Your task to perform on an android device: Open accessibility settings Image 0: 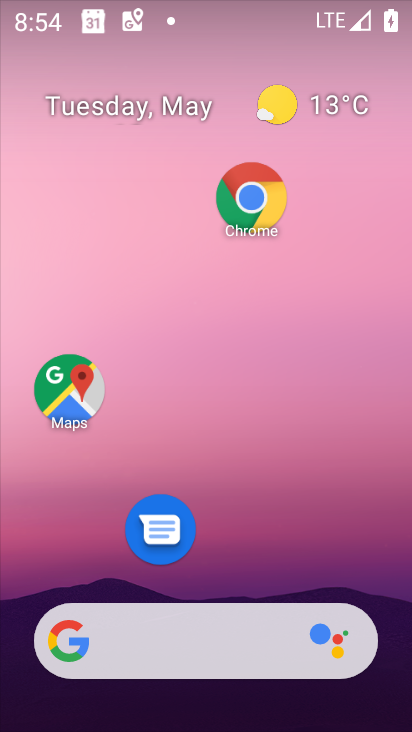
Step 0: drag from (260, 594) to (267, 96)
Your task to perform on an android device: Open accessibility settings Image 1: 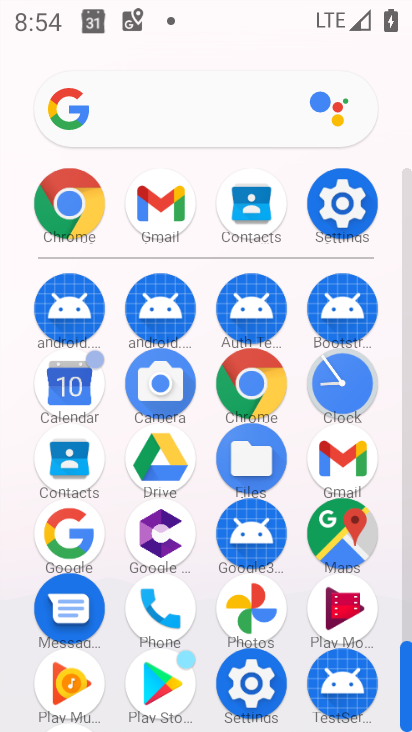
Step 1: click (341, 231)
Your task to perform on an android device: Open accessibility settings Image 2: 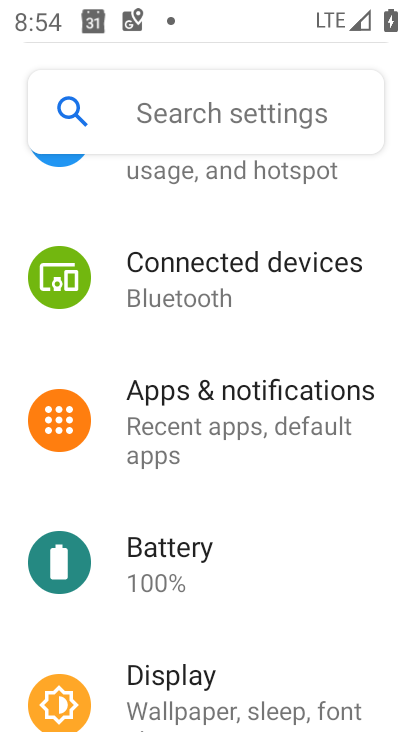
Step 2: drag from (265, 574) to (257, 294)
Your task to perform on an android device: Open accessibility settings Image 3: 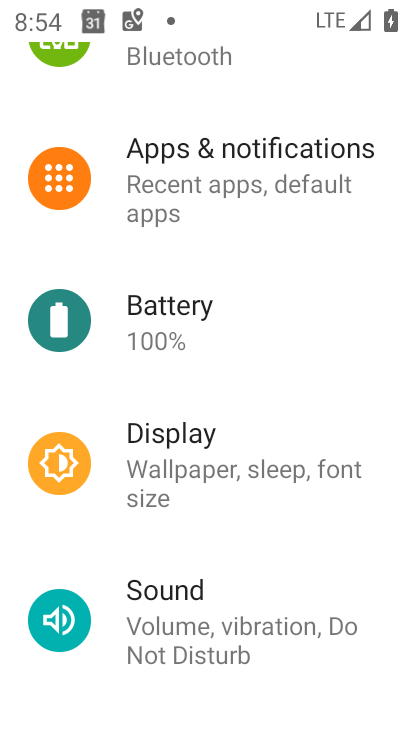
Step 3: drag from (203, 724) to (128, 239)
Your task to perform on an android device: Open accessibility settings Image 4: 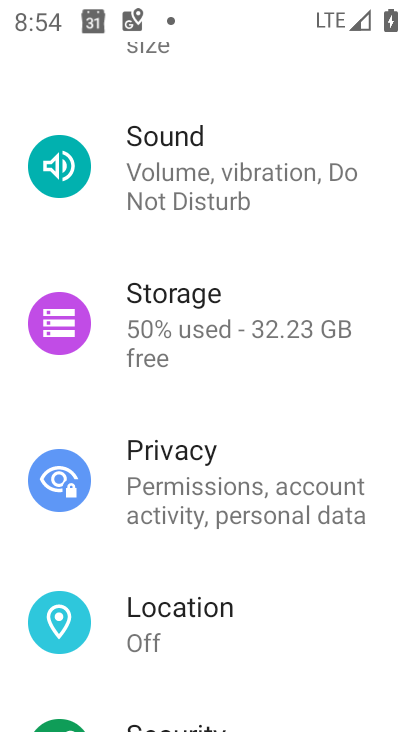
Step 4: drag from (161, 542) to (162, 195)
Your task to perform on an android device: Open accessibility settings Image 5: 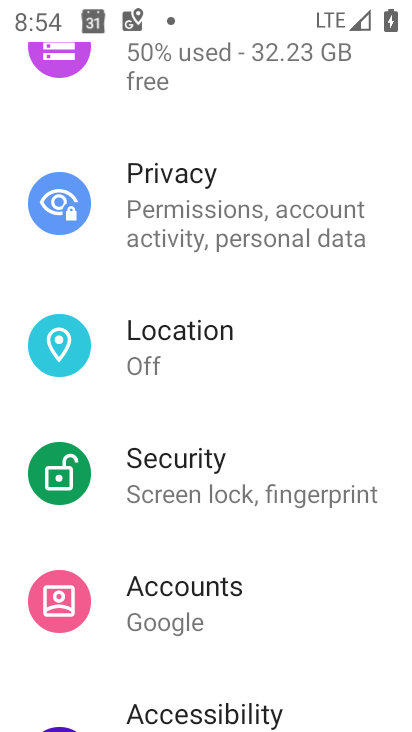
Step 5: click (224, 687)
Your task to perform on an android device: Open accessibility settings Image 6: 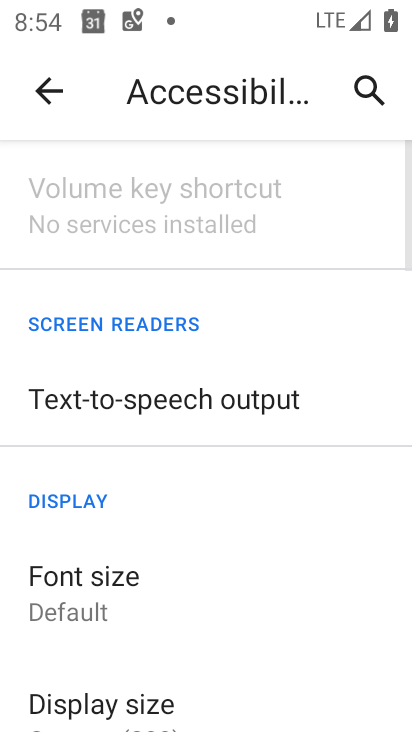
Step 6: task complete